Your task to perform on an android device: Go to wifi settings Image 0: 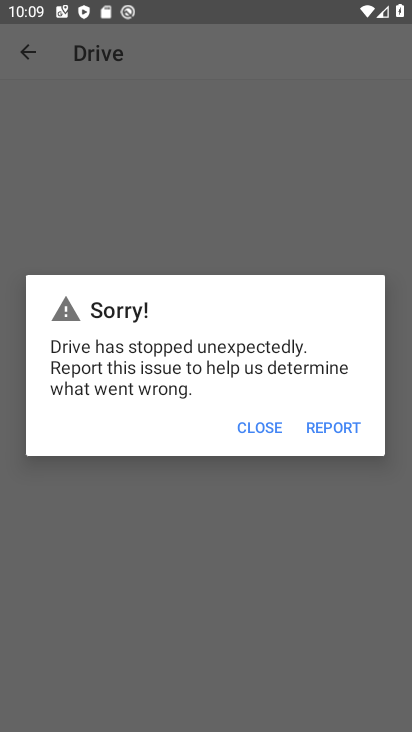
Step 0: press home button
Your task to perform on an android device: Go to wifi settings Image 1: 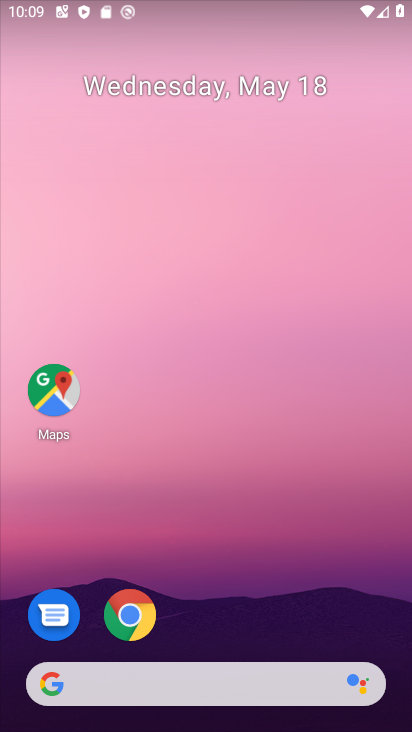
Step 1: drag from (233, 14) to (202, 657)
Your task to perform on an android device: Go to wifi settings Image 2: 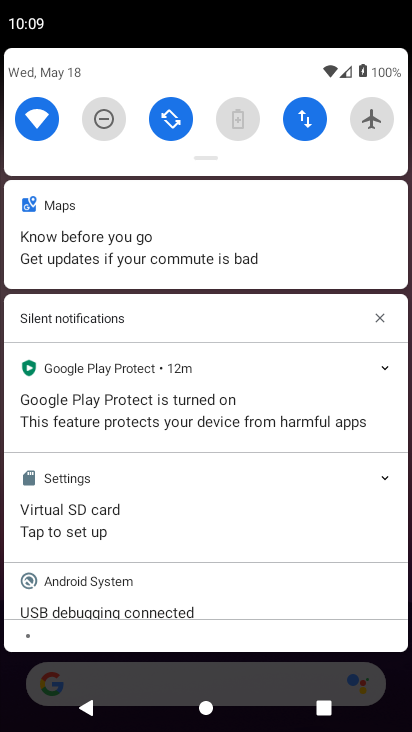
Step 2: click (53, 127)
Your task to perform on an android device: Go to wifi settings Image 3: 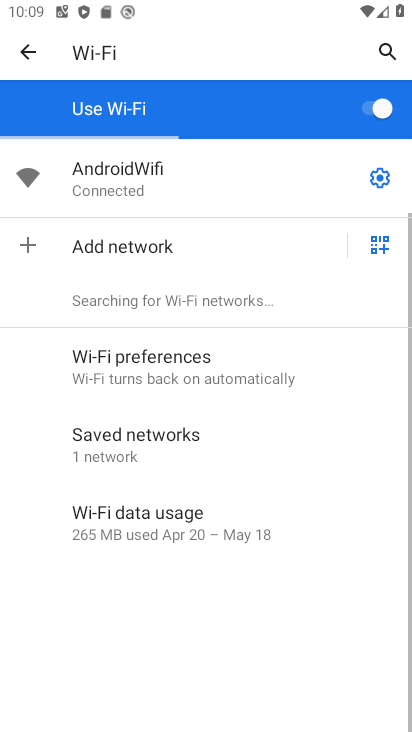
Step 3: task complete